Your task to perform on an android device: Open the calendar app, open the side menu, and click the "Day" option Image 0: 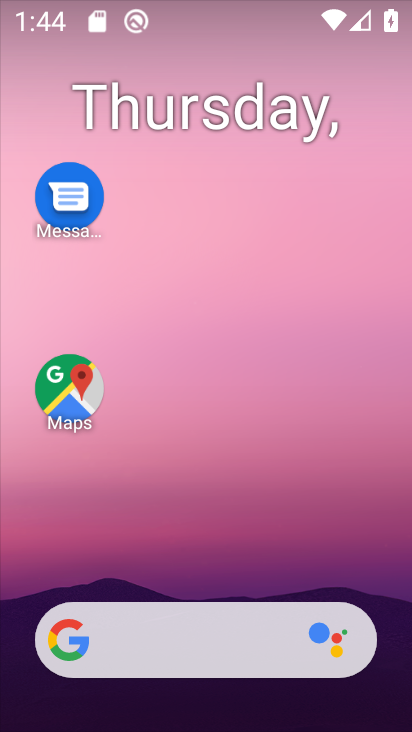
Step 0: click (171, 249)
Your task to perform on an android device: Open the calendar app, open the side menu, and click the "Day" option Image 1: 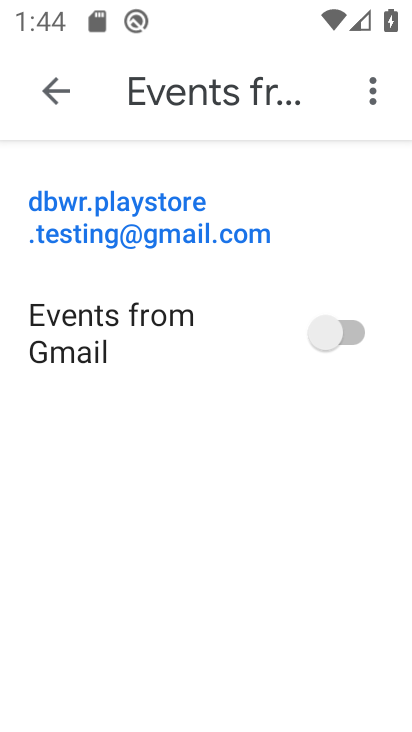
Step 1: press home button
Your task to perform on an android device: Open the calendar app, open the side menu, and click the "Day" option Image 2: 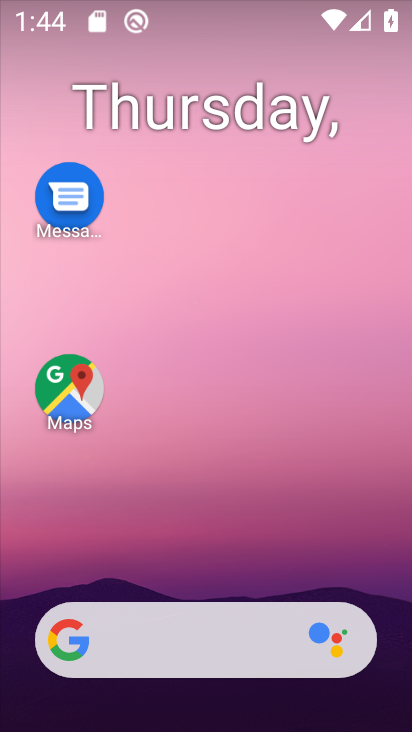
Step 2: drag from (183, 449) to (213, 199)
Your task to perform on an android device: Open the calendar app, open the side menu, and click the "Day" option Image 3: 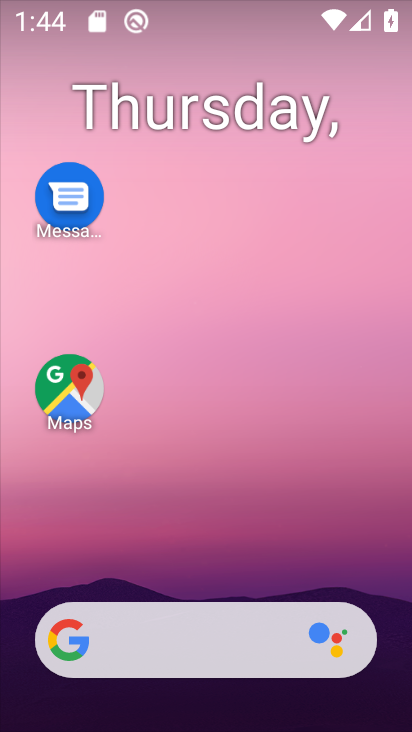
Step 3: drag from (154, 597) to (172, 177)
Your task to perform on an android device: Open the calendar app, open the side menu, and click the "Day" option Image 4: 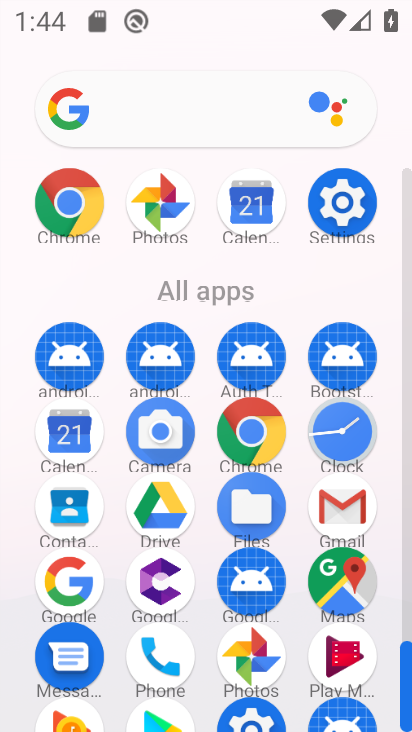
Step 4: click (77, 423)
Your task to perform on an android device: Open the calendar app, open the side menu, and click the "Day" option Image 5: 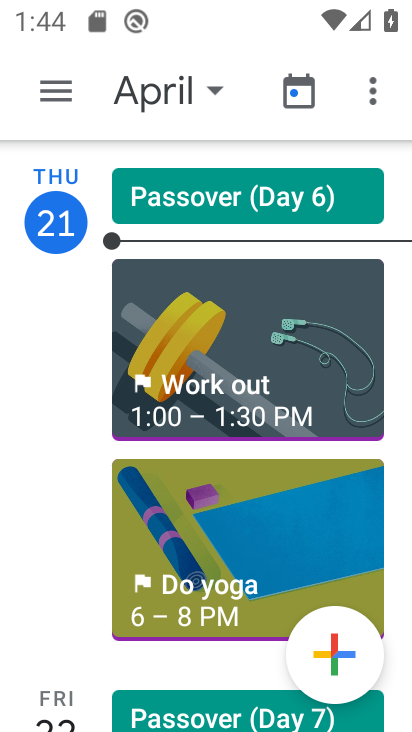
Step 5: click (48, 95)
Your task to perform on an android device: Open the calendar app, open the side menu, and click the "Day" option Image 6: 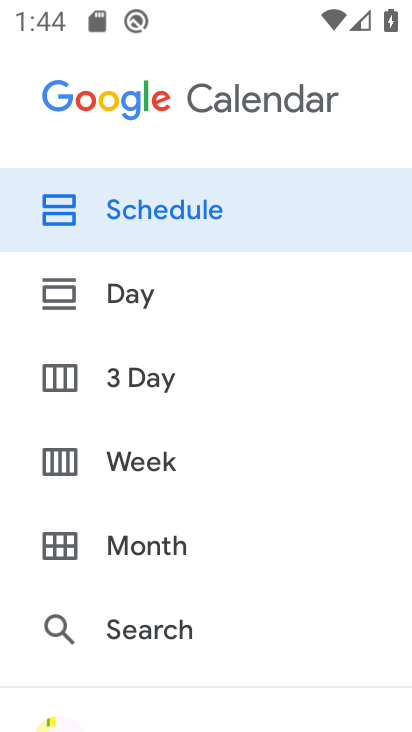
Step 6: click (150, 305)
Your task to perform on an android device: Open the calendar app, open the side menu, and click the "Day" option Image 7: 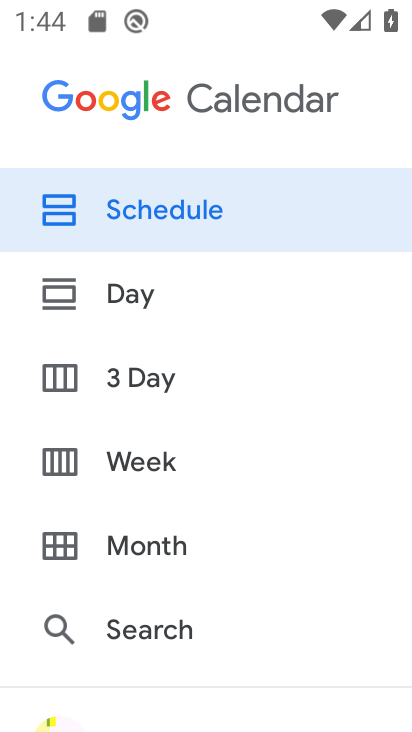
Step 7: click (141, 296)
Your task to perform on an android device: Open the calendar app, open the side menu, and click the "Day" option Image 8: 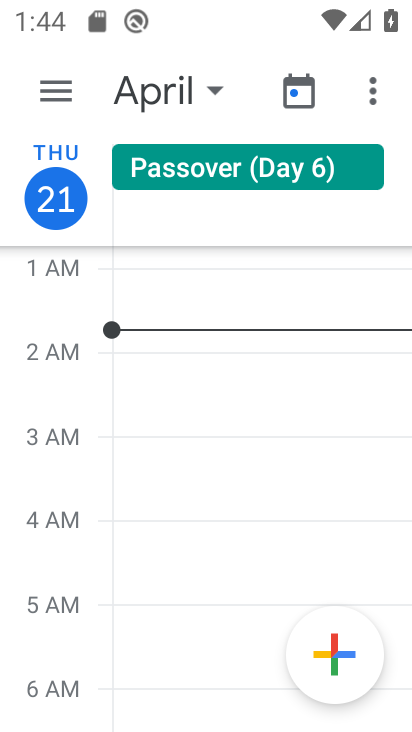
Step 8: task complete